Your task to perform on an android device: Toggle the flashlight Image 0: 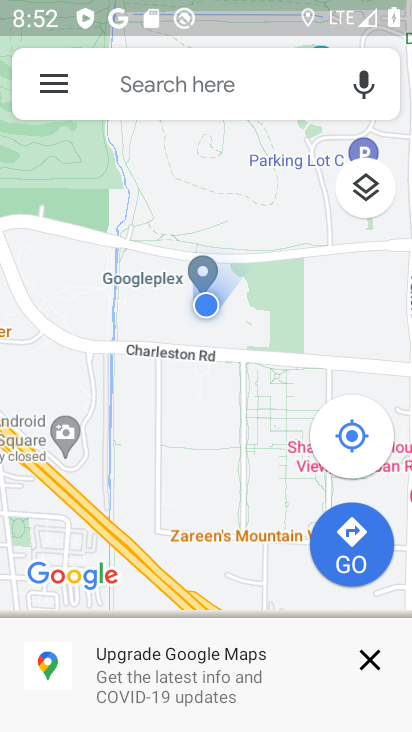
Step 0: press back button
Your task to perform on an android device: Toggle the flashlight Image 1: 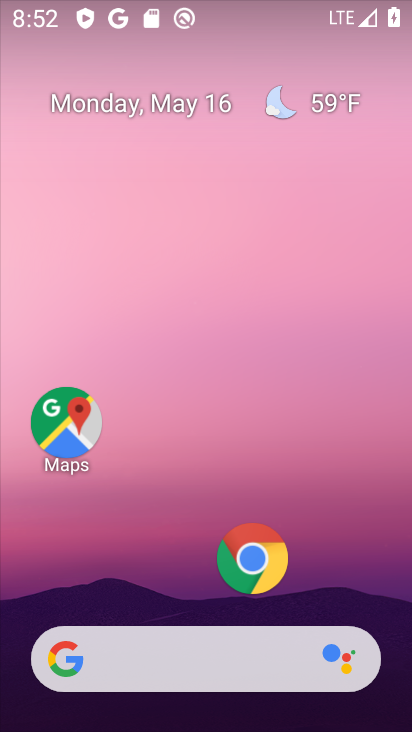
Step 1: drag from (331, 12) to (260, 636)
Your task to perform on an android device: Toggle the flashlight Image 2: 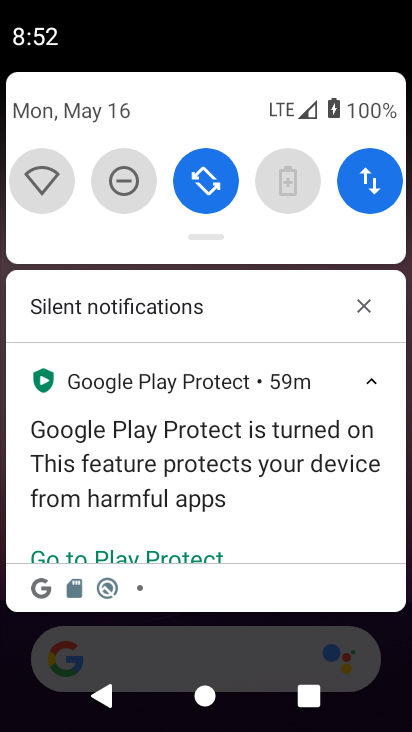
Step 2: drag from (206, 228) to (160, 630)
Your task to perform on an android device: Toggle the flashlight Image 3: 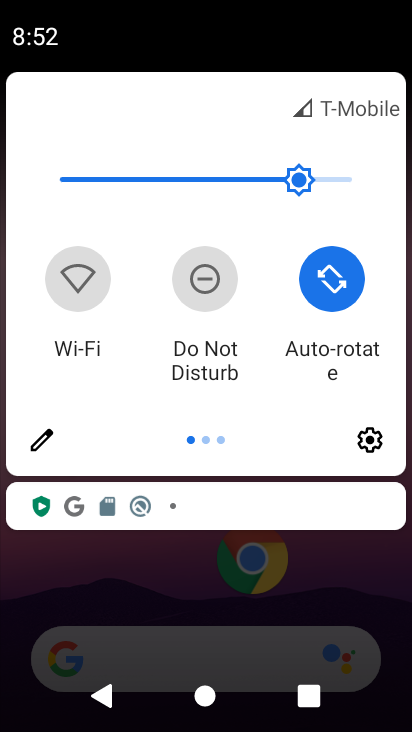
Step 3: drag from (363, 298) to (70, 234)
Your task to perform on an android device: Toggle the flashlight Image 4: 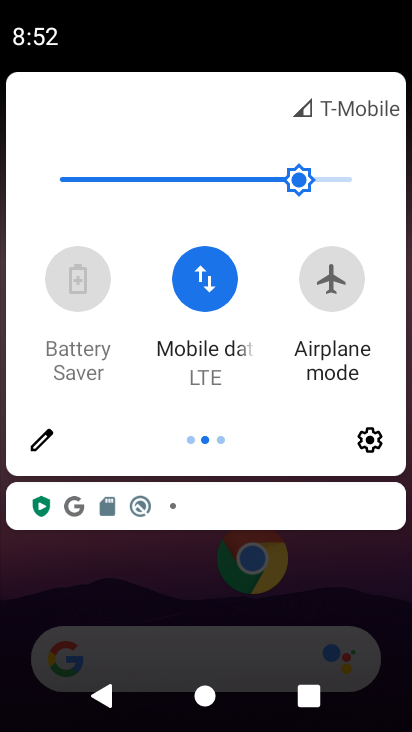
Step 4: drag from (159, 593) to (257, 57)
Your task to perform on an android device: Toggle the flashlight Image 5: 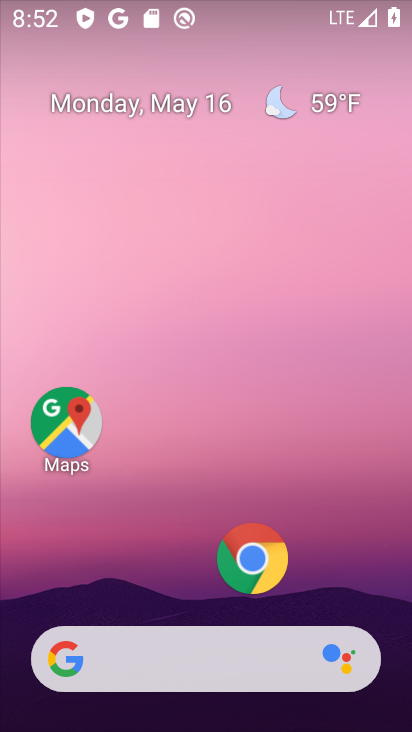
Step 5: drag from (161, 498) to (258, 6)
Your task to perform on an android device: Toggle the flashlight Image 6: 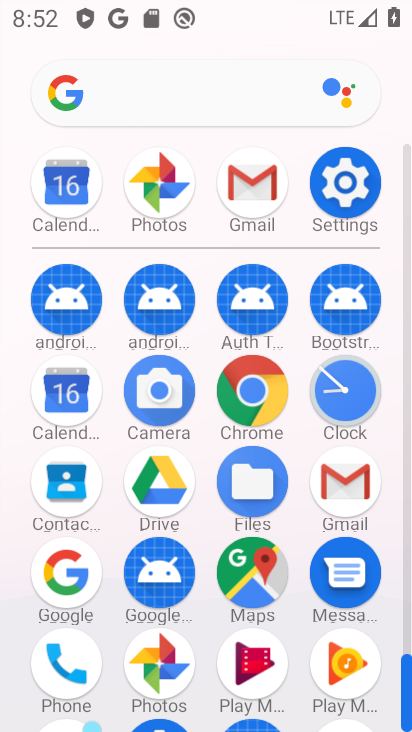
Step 6: click (357, 184)
Your task to perform on an android device: Toggle the flashlight Image 7: 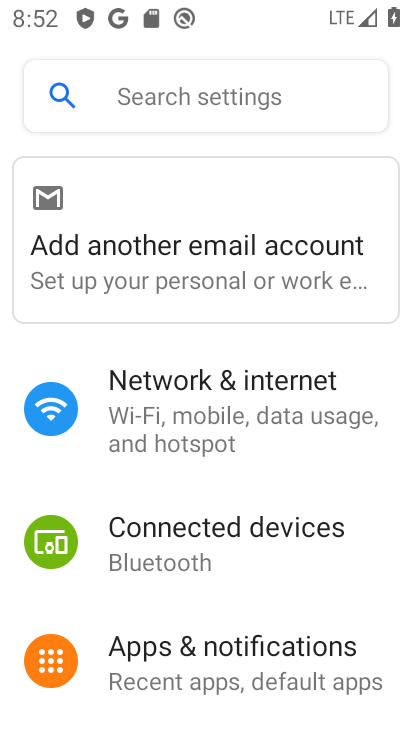
Step 7: click (171, 87)
Your task to perform on an android device: Toggle the flashlight Image 8: 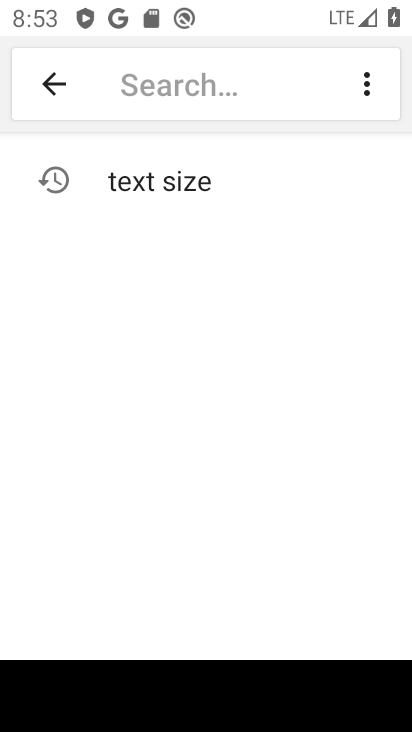
Step 8: type "flashlight"
Your task to perform on an android device: Toggle the flashlight Image 9: 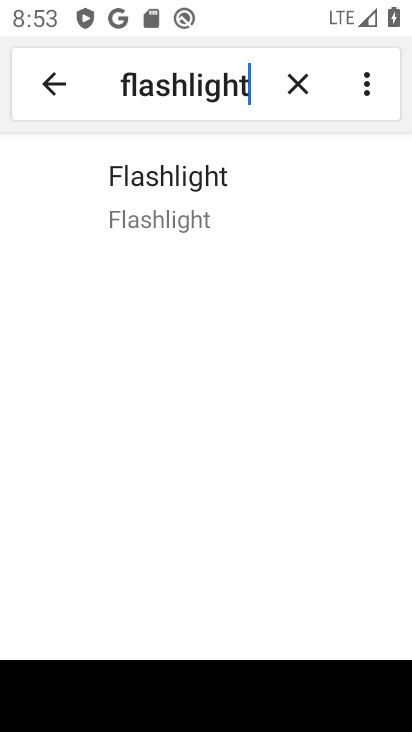
Step 9: click (179, 208)
Your task to perform on an android device: Toggle the flashlight Image 10: 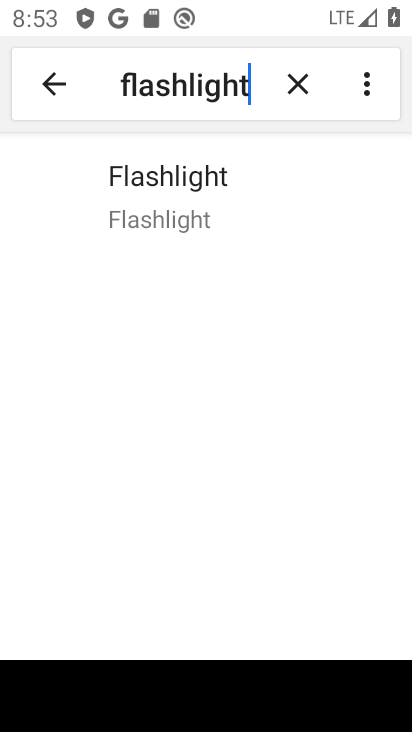
Step 10: task complete